Your task to perform on an android device: turn off smart reply in the gmail app Image 0: 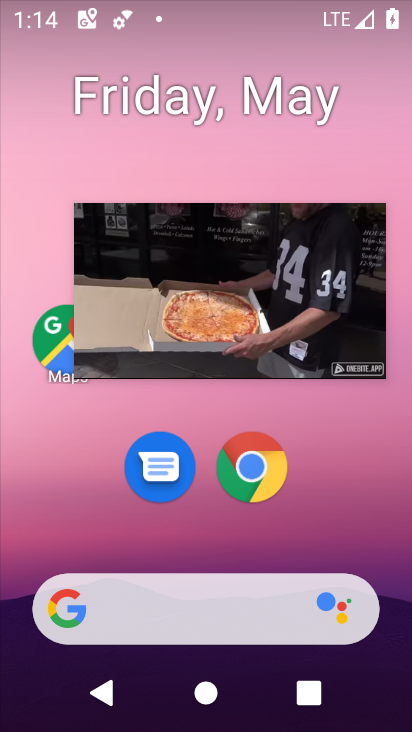
Step 0: click (358, 218)
Your task to perform on an android device: turn off smart reply in the gmail app Image 1: 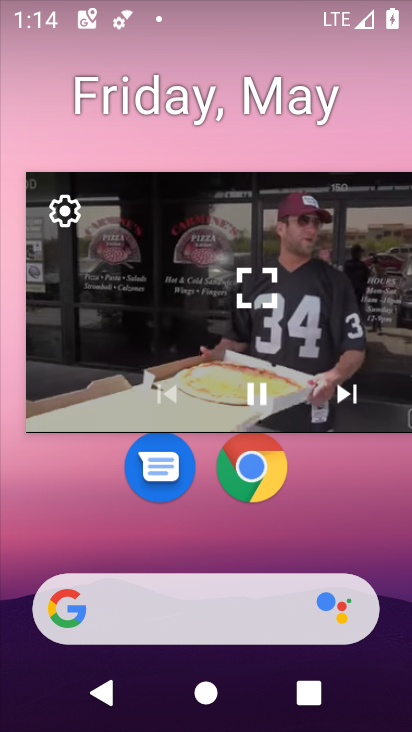
Step 1: drag from (363, 189) to (232, 193)
Your task to perform on an android device: turn off smart reply in the gmail app Image 2: 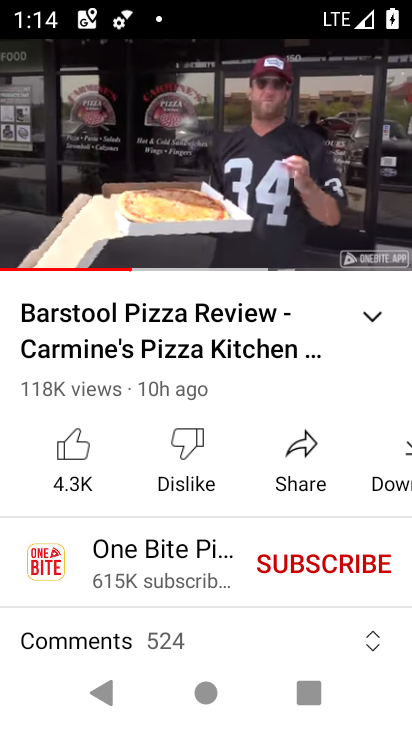
Step 2: press home button
Your task to perform on an android device: turn off smart reply in the gmail app Image 3: 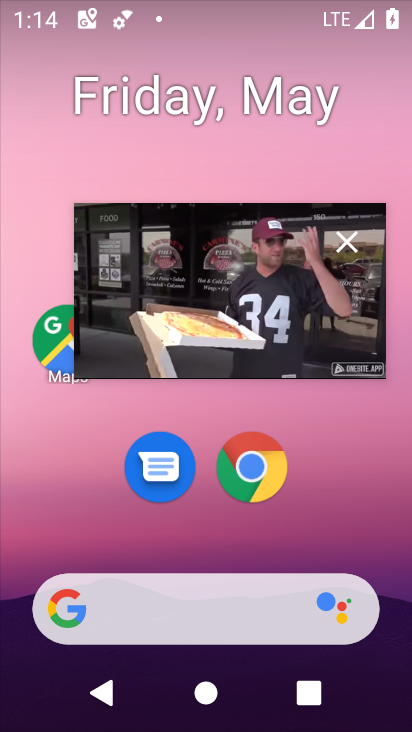
Step 3: click (356, 244)
Your task to perform on an android device: turn off smart reply in the gmail app Image 4: 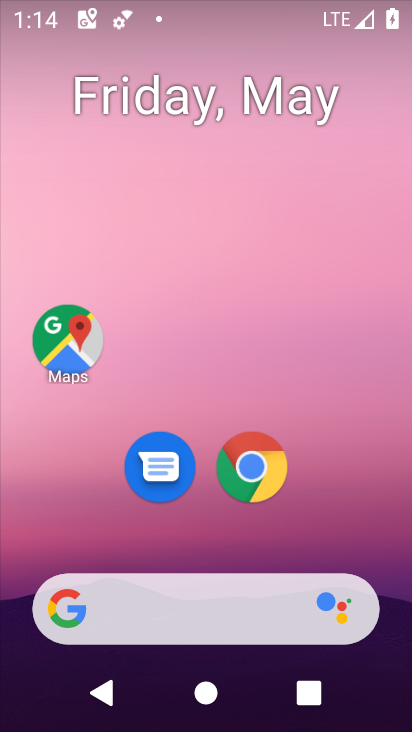
Step 4: drag from (363, 542) to (401, 61)
Your task to perform on an android device: turn off smart reply in the gmail app Image 5: 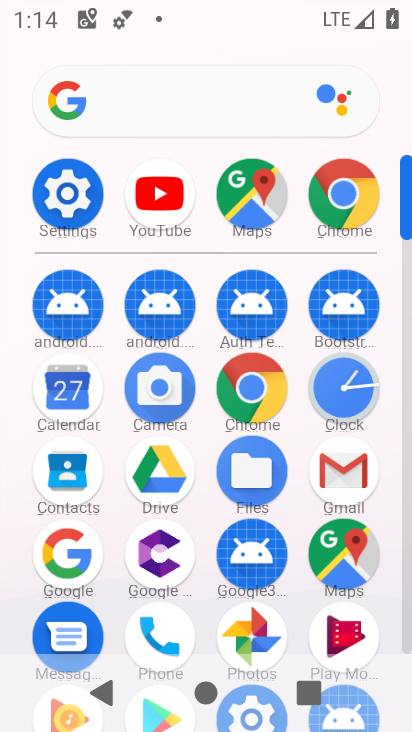
Step 5: drag from (397, 651) to (396, 296)
Your task to perform on an android device: turn off smart reply in the gmail app Image 6: 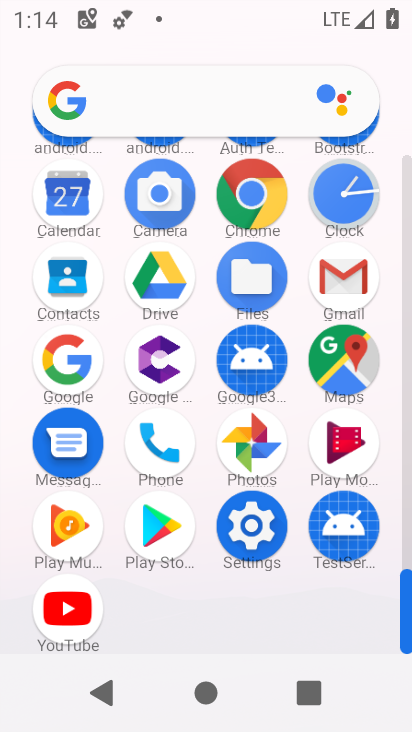
Step 6: click (355, 416)
Your task to perform on an android device: turn off smart reply in the gmail app Image 7: 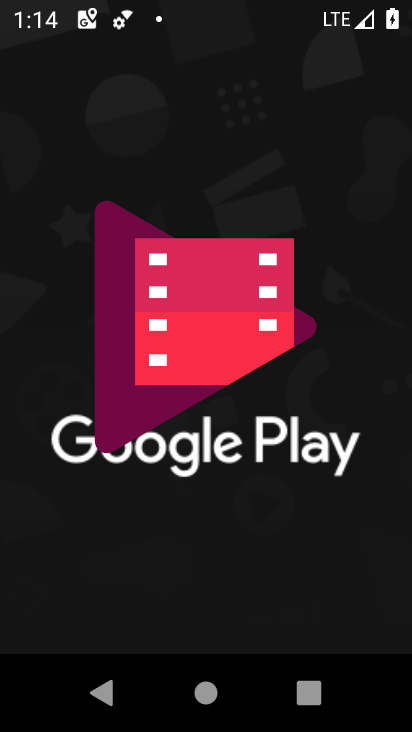
Step 7: press home button
Your task to perform on an android device: turn off smart reply in the gmail app Image 8: 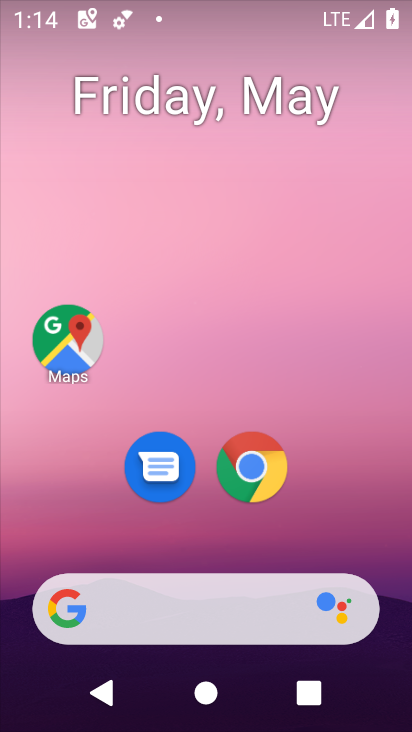
Step 8: drag from (344, 555) to (383, 3)
Your task to perform on an android device: turn off smart reply in the gmail app Image 9: 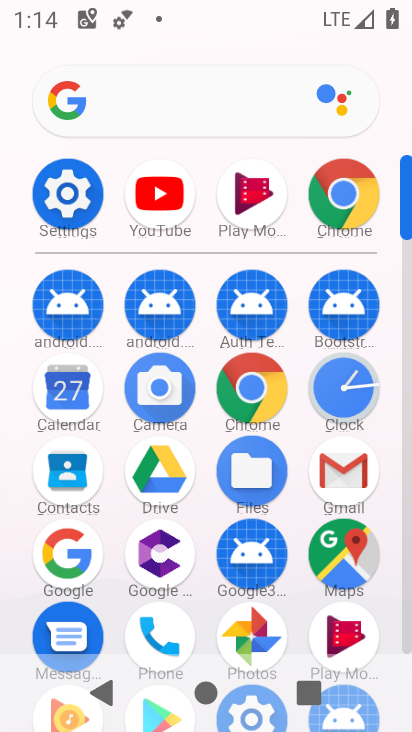
Step 9: click (348, 464)
Your task to perform on an android device: turn off smart reply in the gmail app Image 10: 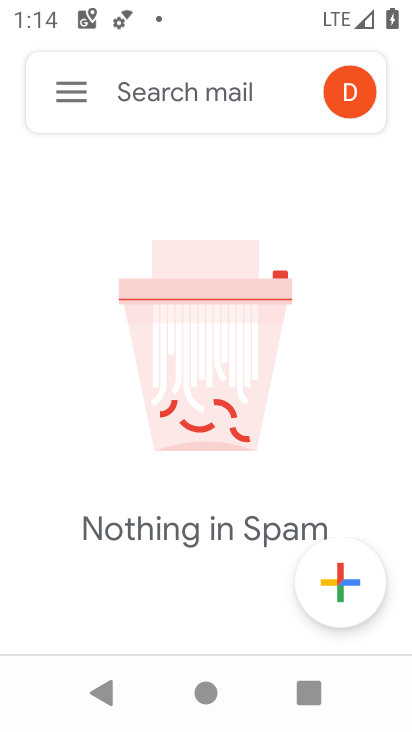
Step 10: click (74, 98)
Your task to perform on an android device: turn off smart reply in the gmail app Image 11: 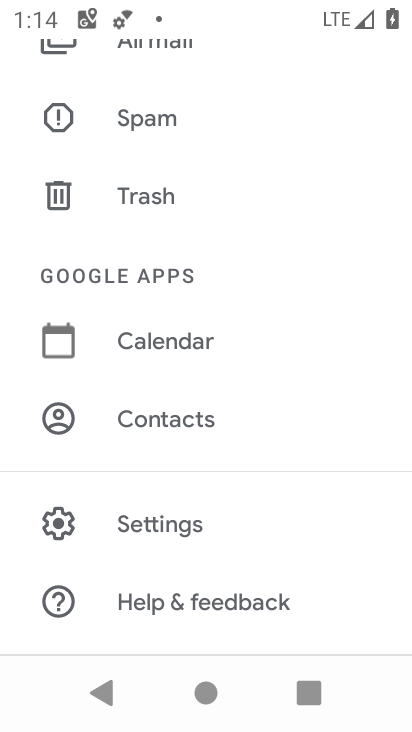
Step 11: click (178, 538)
Your task to perform on an android device: turn off smart reply in the gmail app Image 12: 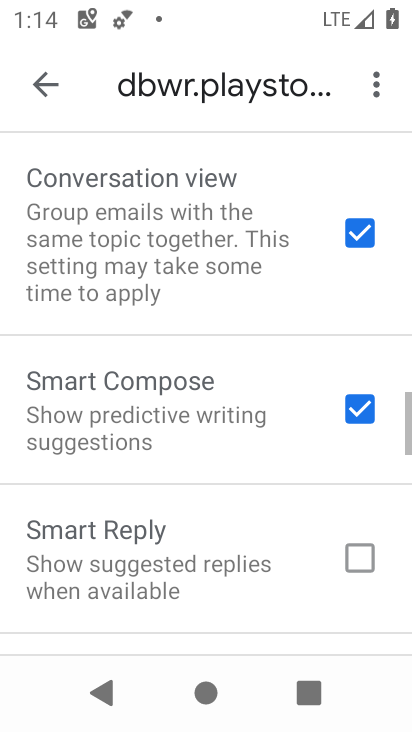
Step 12: task complete